Your task to perform on an android device: Open settings Image 0: 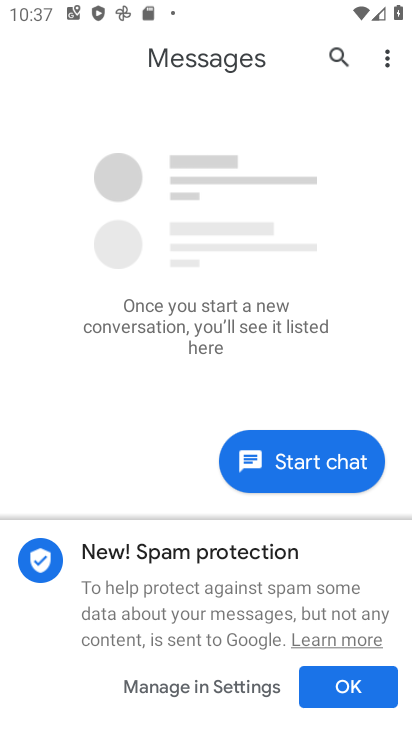
Step 0: press home button
Your task to perform on an android device: Open settings Image 1: 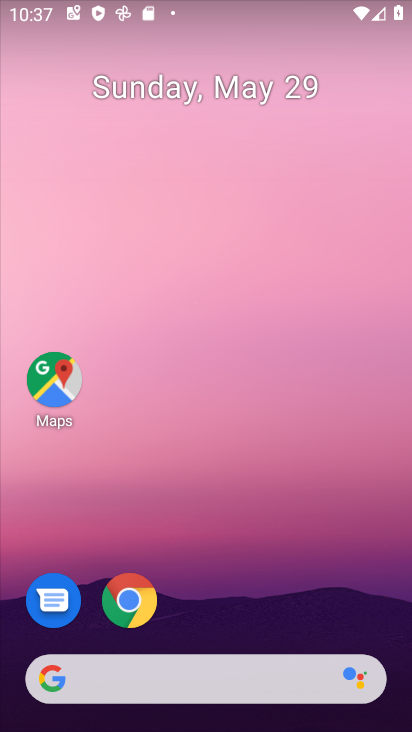
Step 1: drag from (211, 730) to (176, 45)
Your task to perform on an android device: Open settings Image 2: 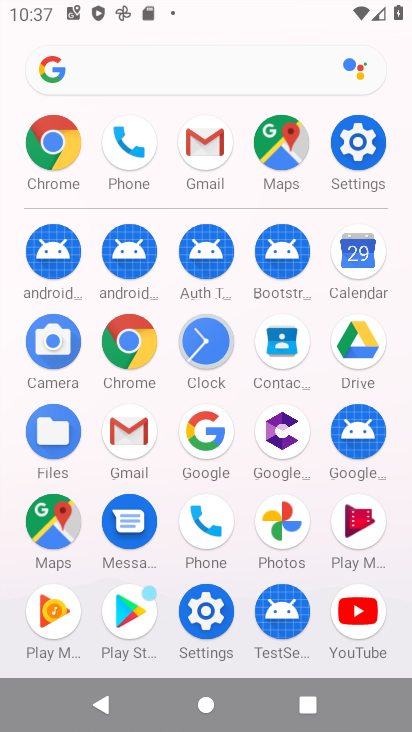
Step 2: click (354, 146)
Your task to perform on an android device: Open settings Image 3: 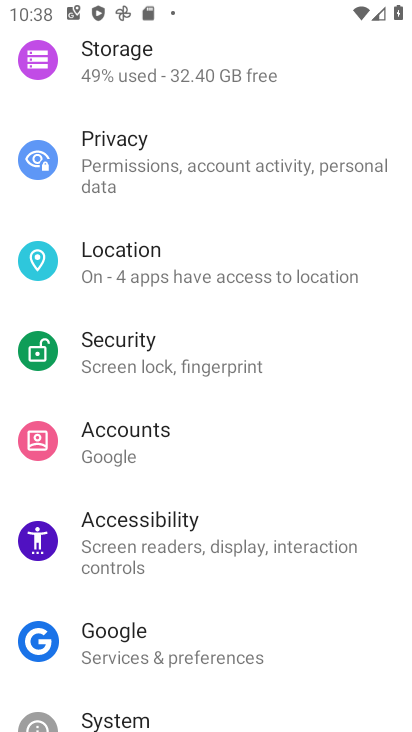
Step 3: task complete